Your task to perform on an android device: Open calendar and show me the second week of next month Image 0: 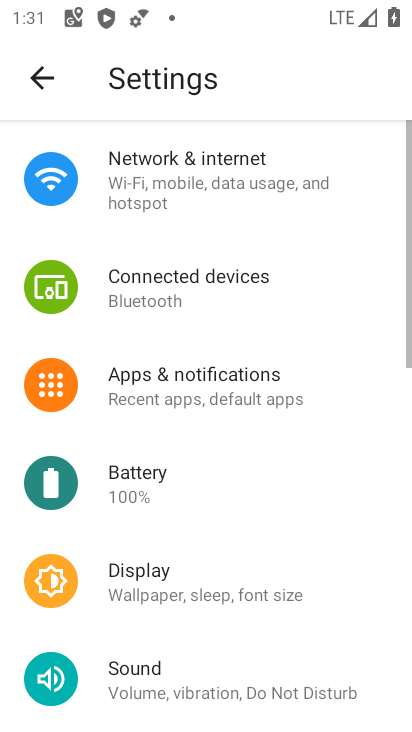
Step 0: press home button
Your task to perform on an android device: Open calendar and show me the second week of next month Image 1: 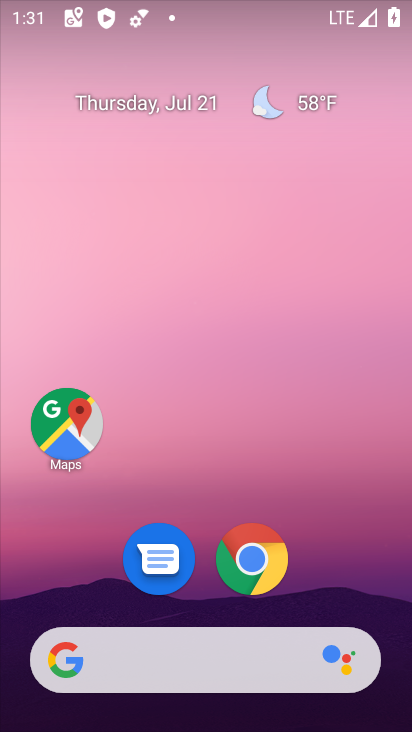
Step 1: drag from (351, 561) to (396, 101)
Your task to perform on an android device: Open calendar and show me the second week of next month Image 2: 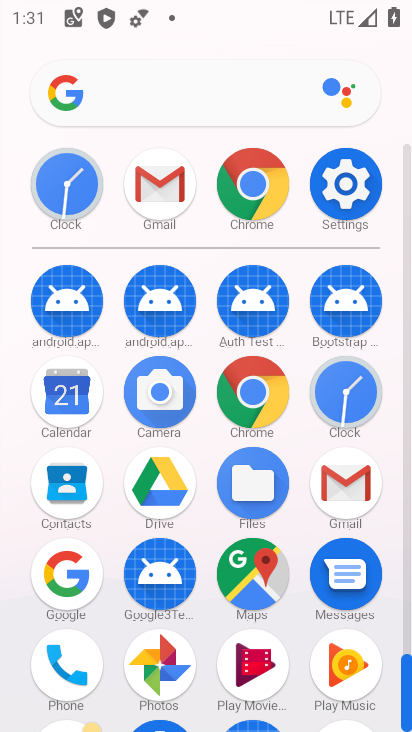
Step 2: click (73, 400)
Your task to perform on an android device: Open calendar and show me the second week of next month Image 3: 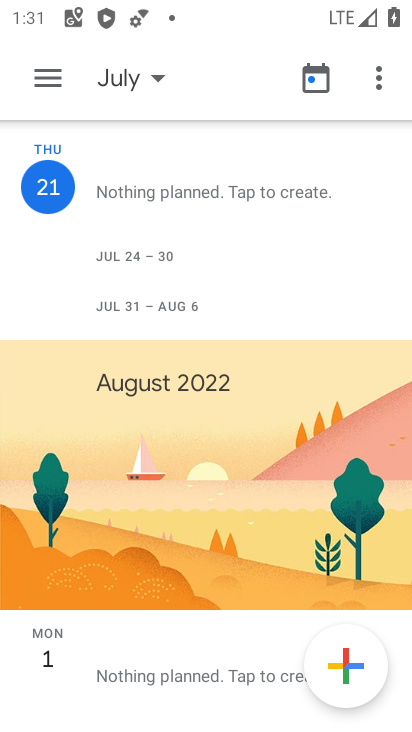
Step 3: click (155, 90)
Your task to perform on an android device: Open calendar and show me the second week of next month Image 4: 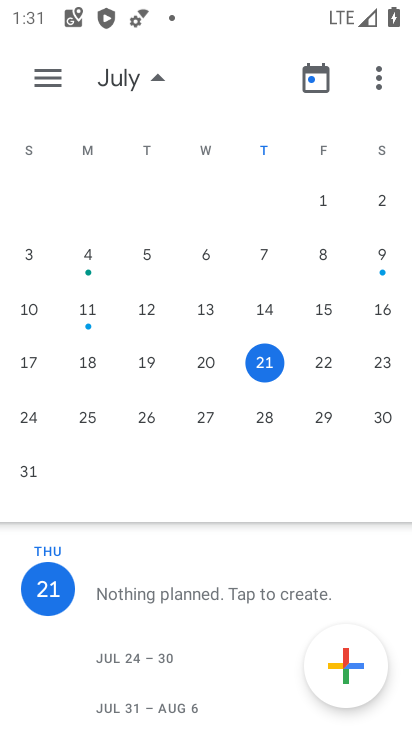
Step 4: drag from (384, 226) to (20, 192)
Your task to perform on an android device: Open calendar and show me the second week of next month Image 5: 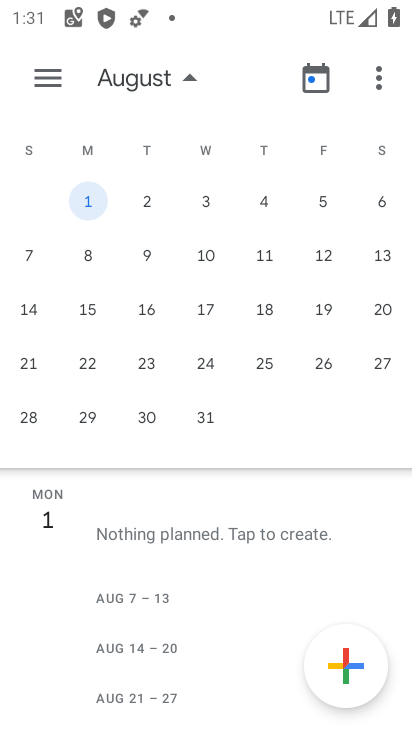
Step 5: click (92, 260)
Your task to perform on an android device: Open calendar and show me the second week of next month Image 6: 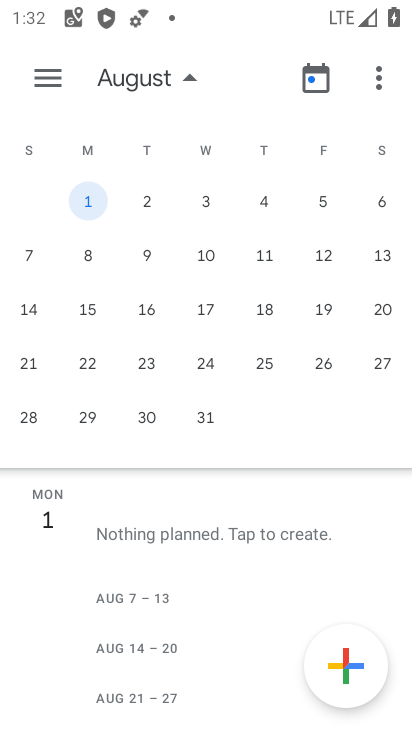
Step 6: click (89, 261)
Your task to perform on an android device: Open calendar and show me the second week of next month Image 7: 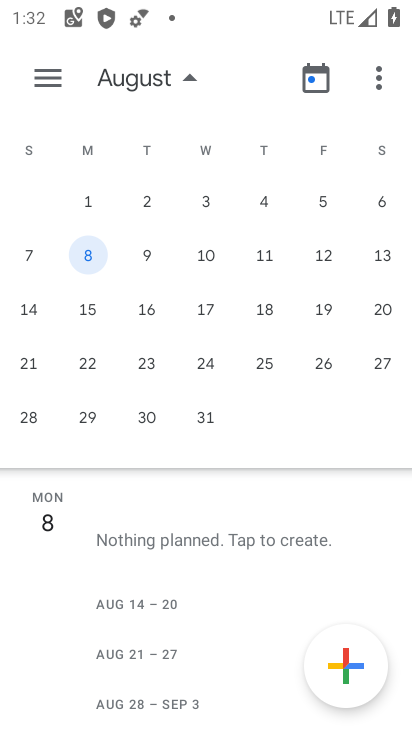
Step 7: task complete